Your task to perform on an android device: toggle airplane mode Image 0: 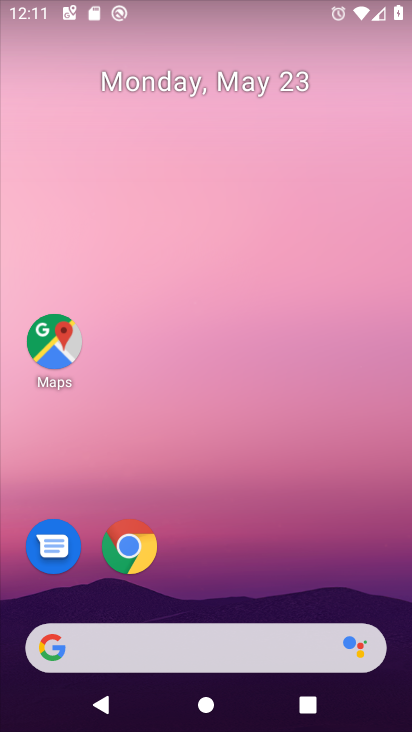
Step 0: drag from (177, 670) to (191, 46)
Your task to perform on an android device: toggle airplane mode Image 1: 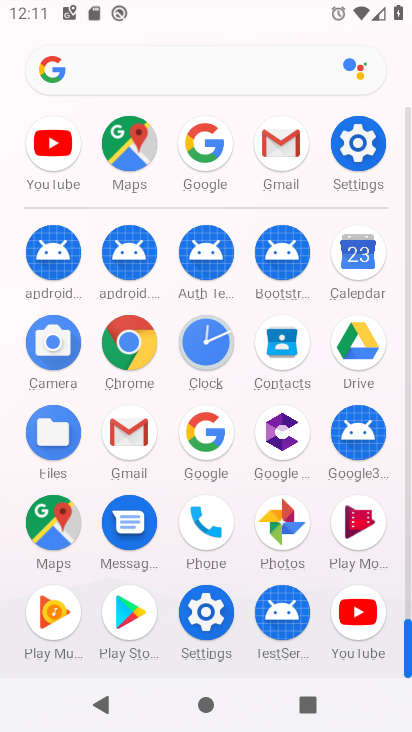
Step 1: click (371, 154)
Your task to perform on an android device: toggle airplane mode Image 2: 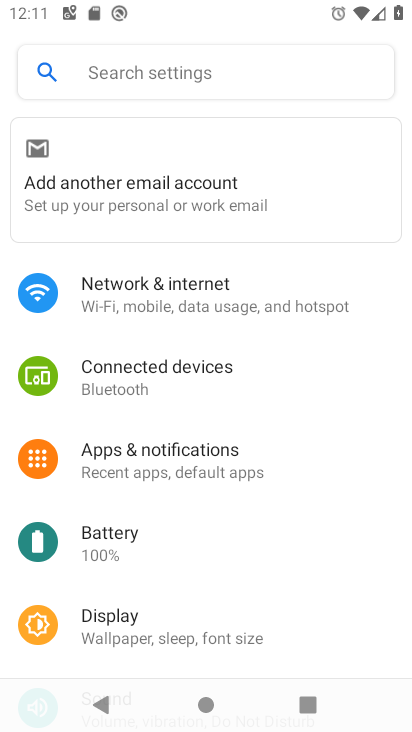
Step 2: click (238, 304)
Your task to perform on an android device: toggle airplane mode Image 3: 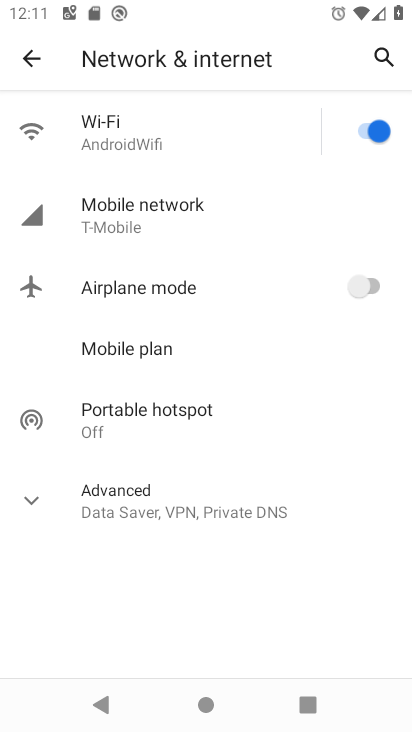
Step 3: click (254, 282)
Your task to perform on an android device: toggle airplane mode Image 4: 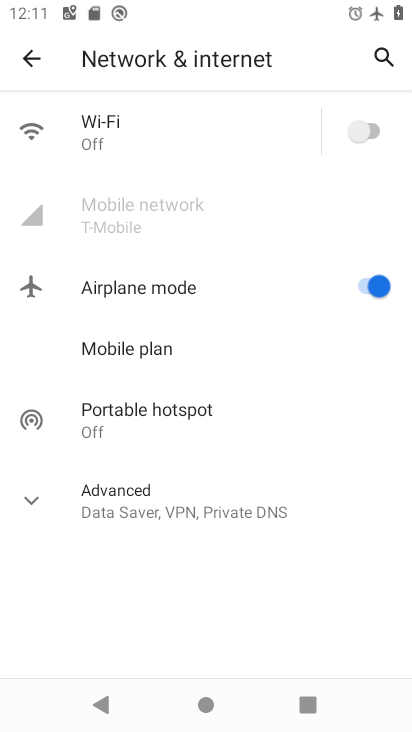
Step 4: task complete